Your task to perform on an android device: open chrome and create a bookmark for the current page Image 0: 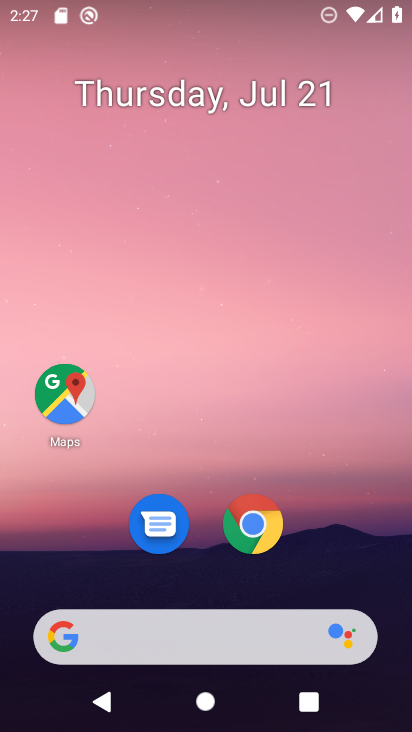
Step 0: press home button
Your task to perform on an android device: open chrome and create a bookmark for the current page Image 1: 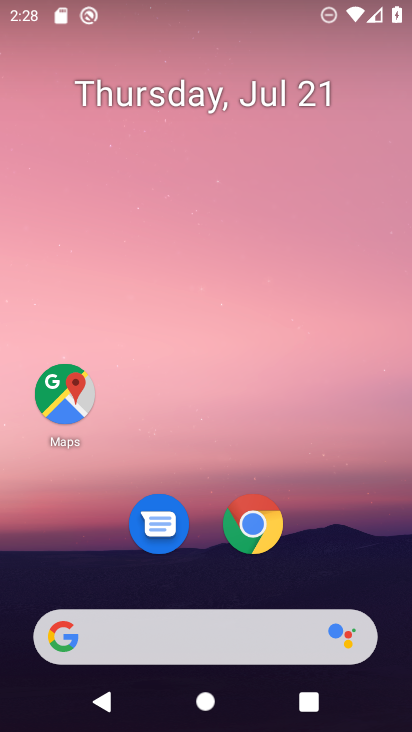
Step 1: press home button
Your task to perform on an android device: open chrome and create a bookmark for the current page Image 2: 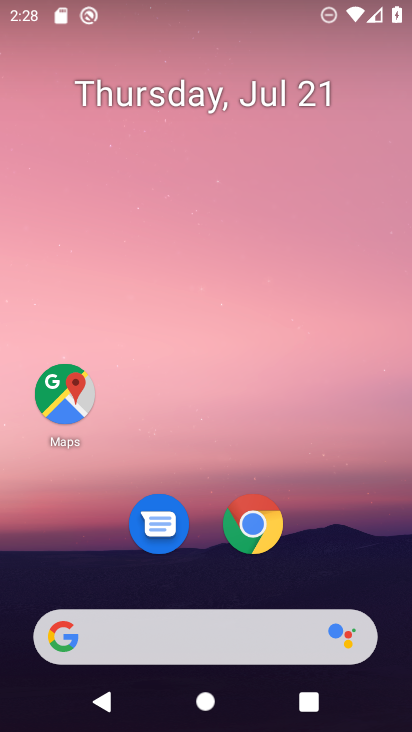
Step 2: click (261, 518)
Your task to perform on an android device: open chrome and create a bookmark for the current page Image 3: 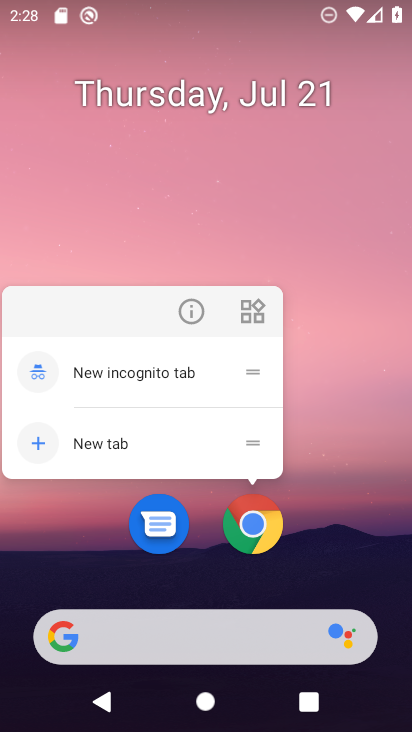
Step 3: click (248, 530)
Your task to perform on an android device: open chrome and create a bookmark for the current page Image 4: 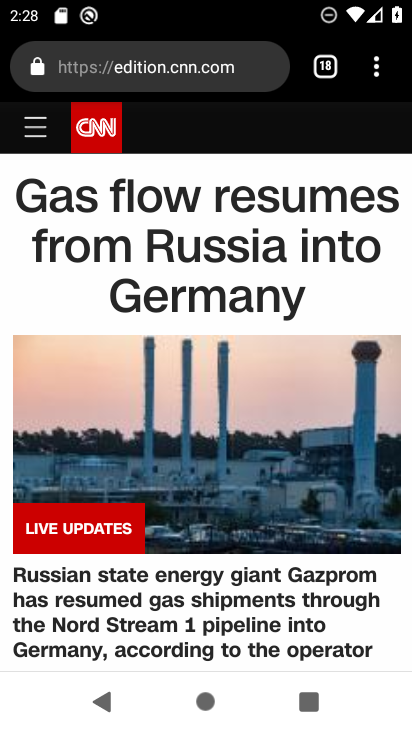
Step 4: drag from (380, 70) to (215, 35)
Your task to perform on an android device: open chrome and create a bookmark for the current page Image 5: 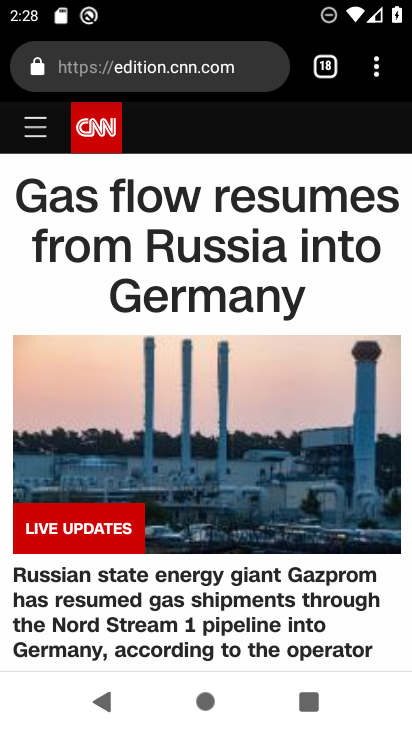
Step 5: click (378, 91)
Your task to perform on an android device: open chrome and create a bookmark for the current page Image 6: 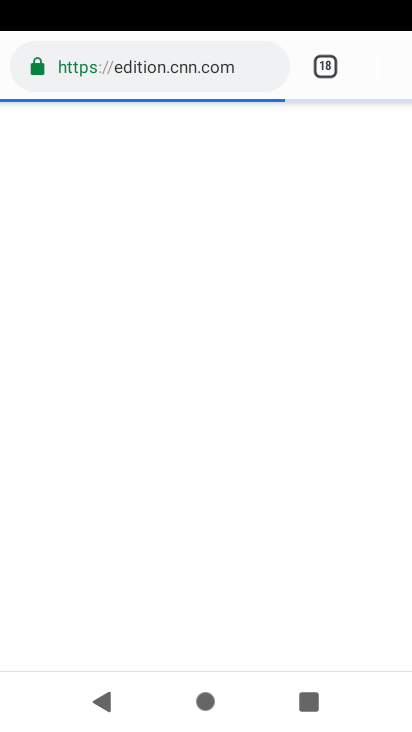
Step 6: click (373, 95)
Your task to perform on an android device: open chrome and create a bookmark for the current page Image 7: 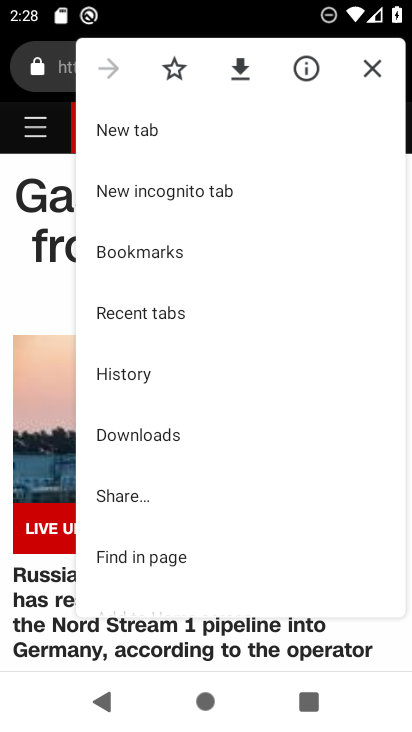
Step 7: click (174, 66)
Your task to perform on an android device: open chrome and create a bookmark for the current page Image 8: 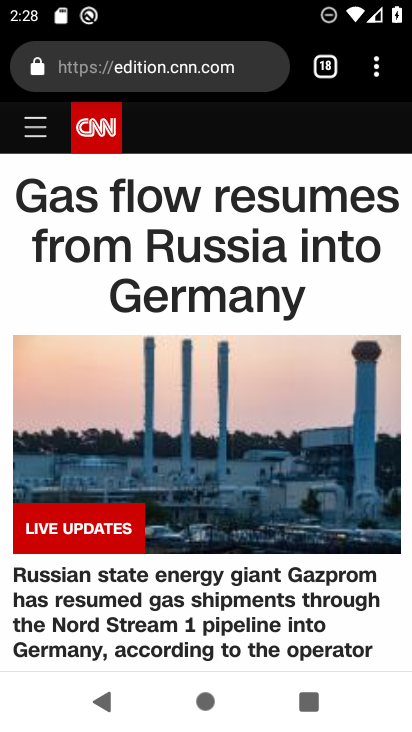
Step 8: task complete